Your task to perform on an android device: What's on my calendar tomorrow? Image 0: 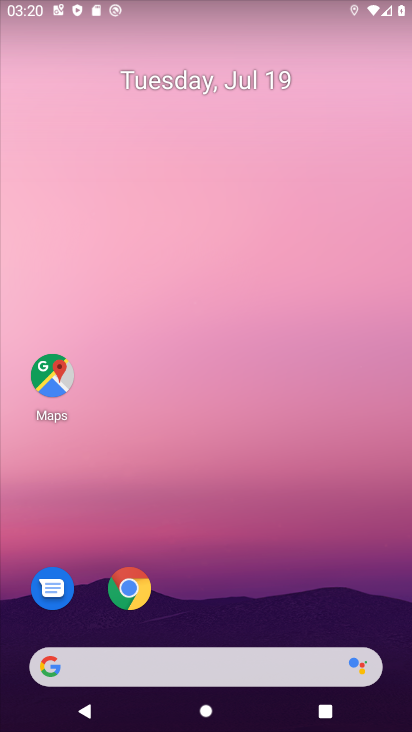
Step 0: drag from (243, 563) to (201, 22)
Your task to perform on an android device: What's on my calendar tomorrow? Image 1: 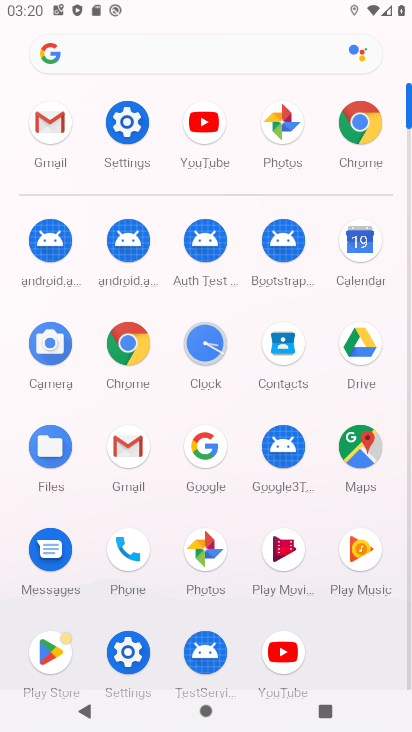
Step 1: click (359, 226)
Your task to perform on an android device: What's on my calendar tomorrow? Image 2: 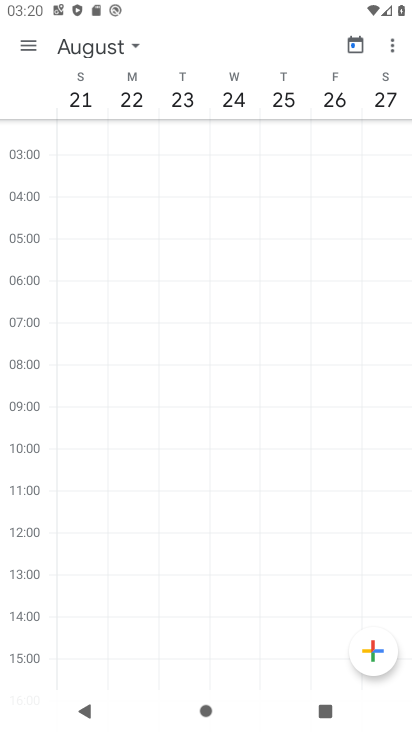
Step 2: click (36, 42)
Your task to perform on an android device: What's on my calendar tomorrow? Image 3: 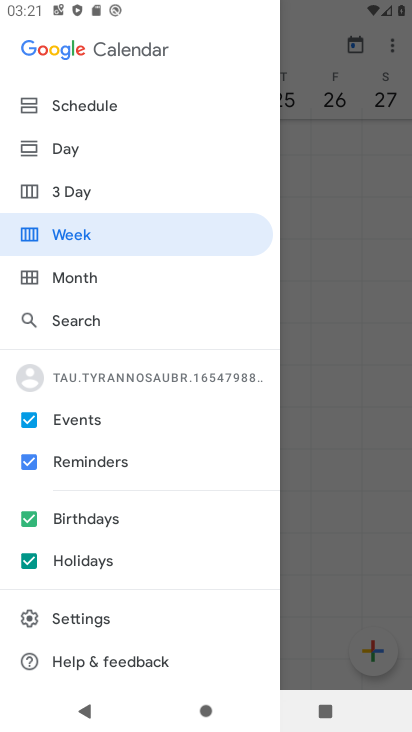
Step 3: click (67, 148)
Your task to perform on an android device: What's on my calendar tomorrow? Image 4: 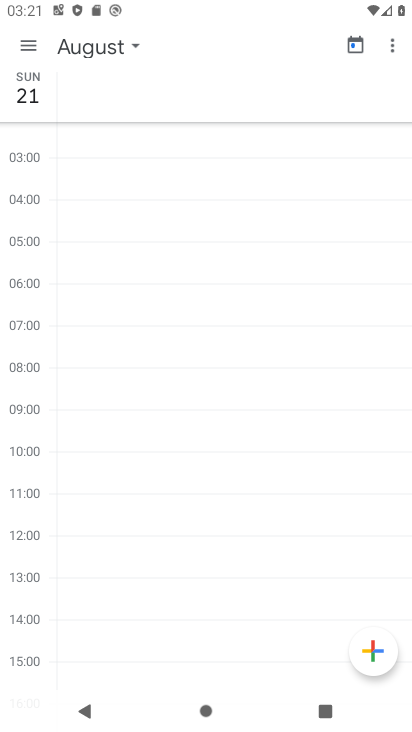
Step 4: click (134, 47)
Your task to perform on an android device: What's on my calendar tomorrow? Image 5: 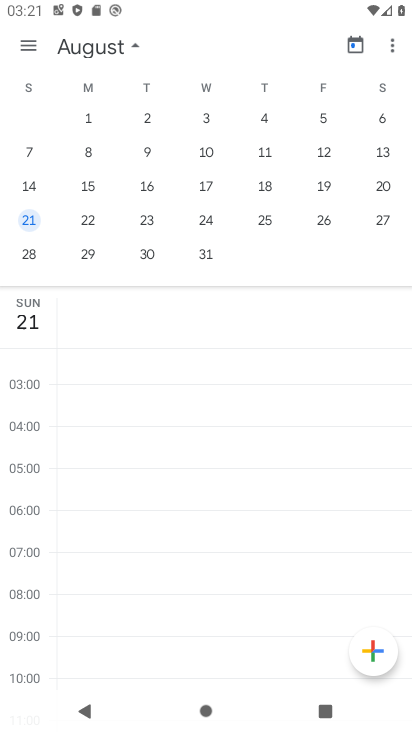
Step 5: drag from (60, 168) to (330, 168)
Your task to perform on an android device: What's on my calendar tomorrow? Image 6: 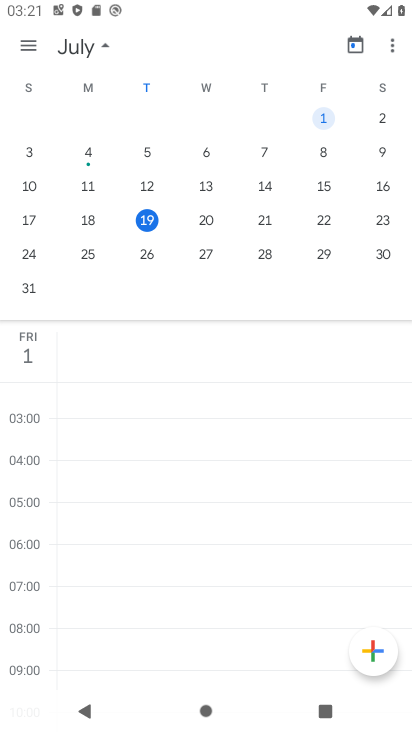
Step 6: click (202, 214)
Your task to perform on an android device: What's on my calendar tomorrow? Image 7: 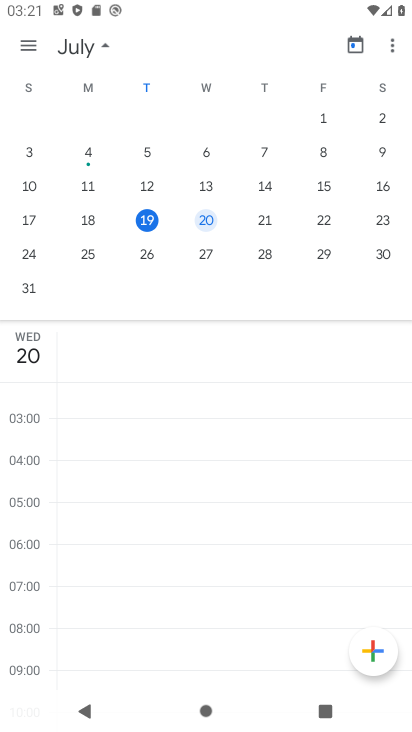
Step 7: task complete